Your task to perform on an android device: set the timer Image 0: 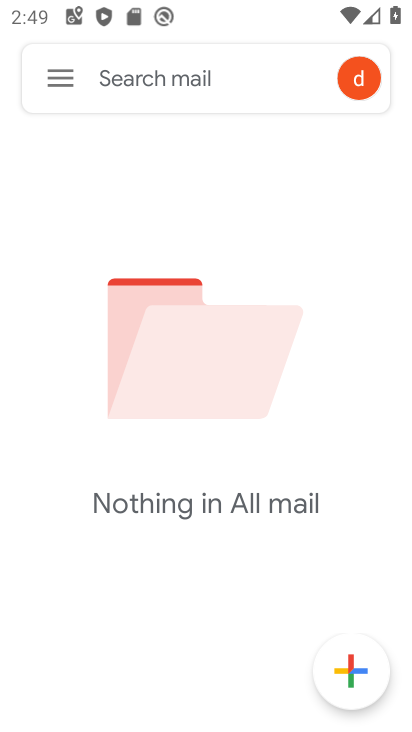
Step 0: press home button
Your task to perform on an android device: set the timer Image 1: 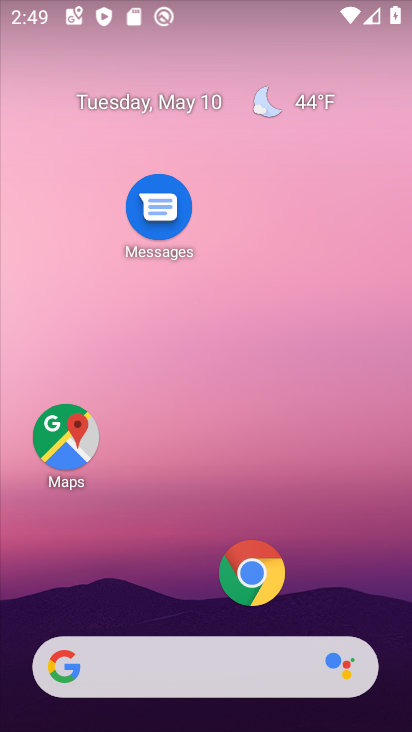
Step 1: drag from (179, 589) to (237, 195)
Your task to perform on an android device: set the timer Image 2: 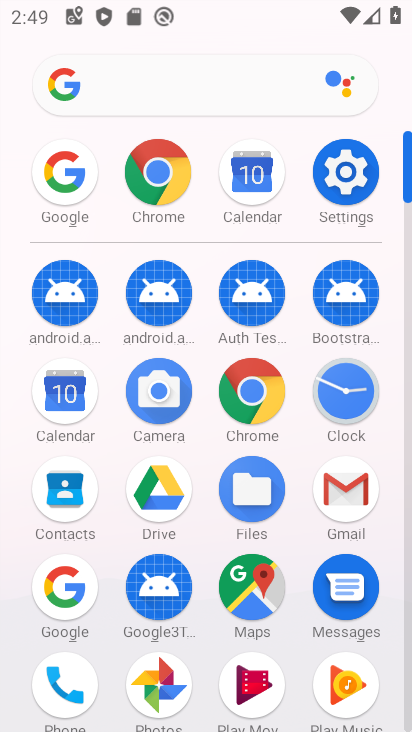
Step 2: click (334, 416)
Your task to perform on an android device: set the timer Image 3: 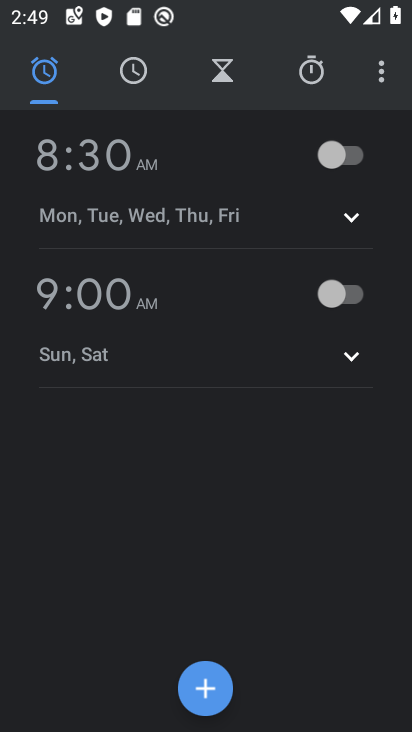
Step 3: click (215, 86)
Your task to perform on an android device: set the timer Image 4: 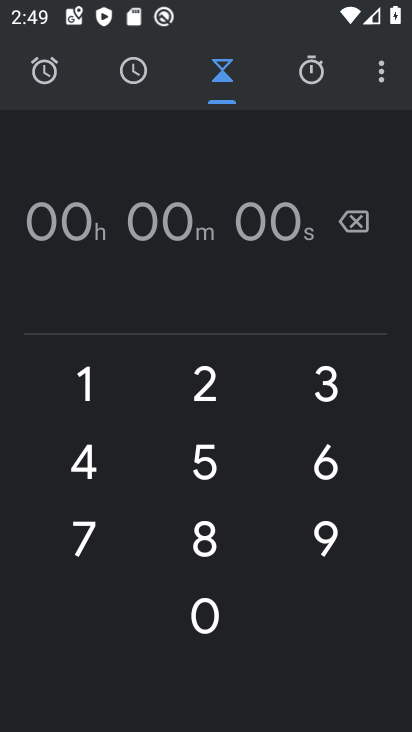
Step 4: click (269, 218)
Your task to perform on an android device: set the timer Image 5: 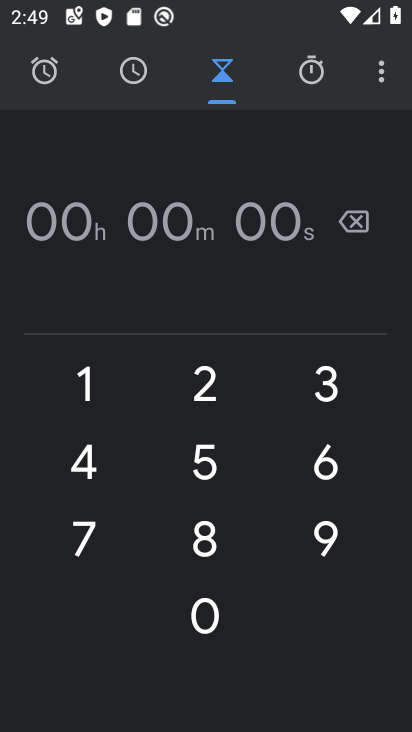
Step 5: type "32"
Your task to perform on an android device: set the timer Image 6: 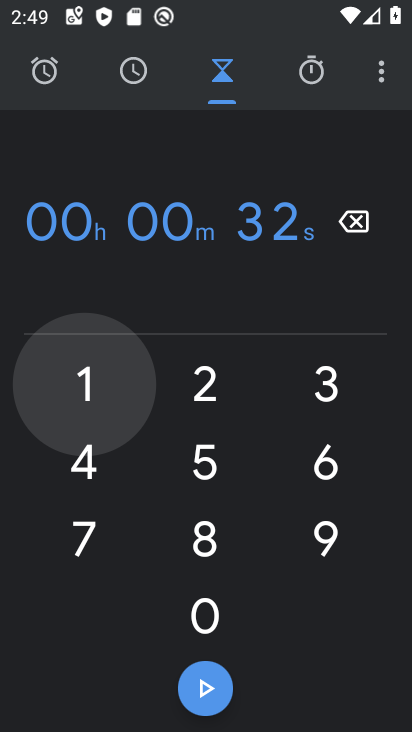
Step 6: click (195, 688)
Your task to perform on an android device: set the timer Image 7: 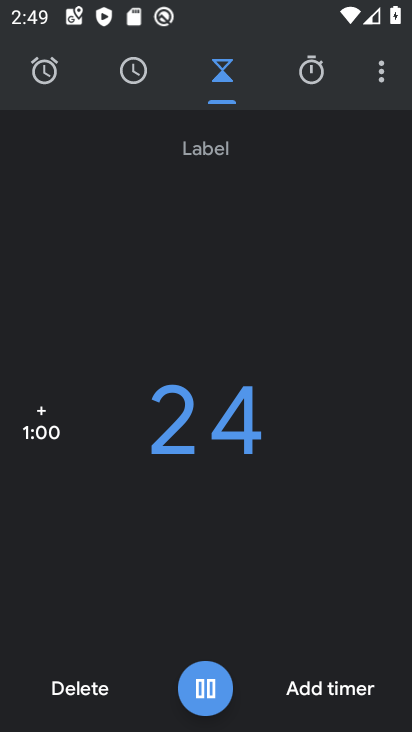
Step 7: task complete